Your task to perform on an android device: Open Google Chrome Image 0: 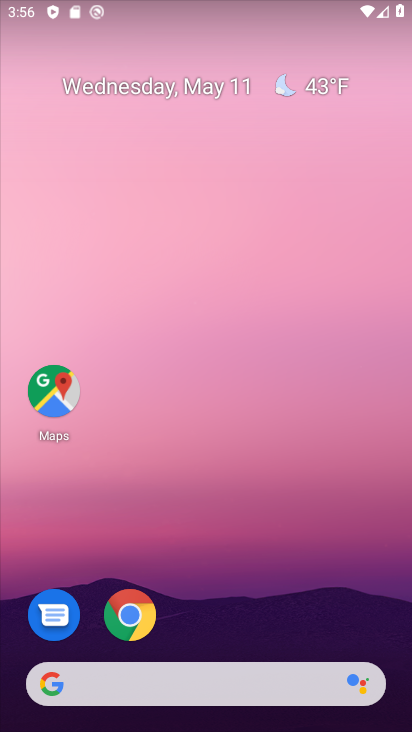
Step 0: drag from (279, 559) to (249, 97)
Your task to perform on an android device: Open Google Chrome Image 1: 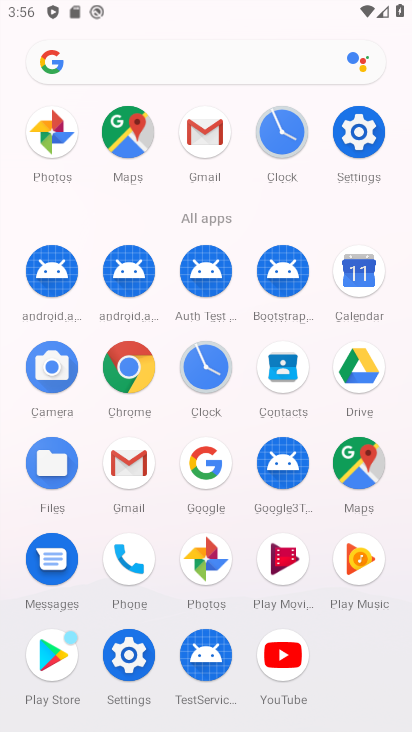
Step 1: drag from (5, 610) to (5, 242)
Your task to perform on an android device: Open Google Chrome Image 2: 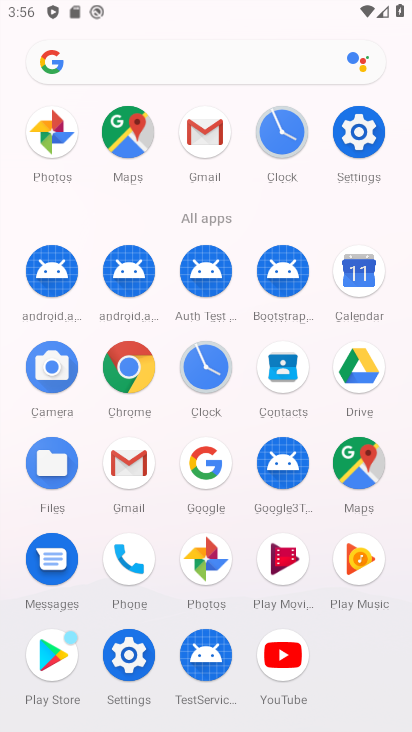
Step 2: click (130, 366)
Your task to perform on an android device: Open Google Chrome Image 3: 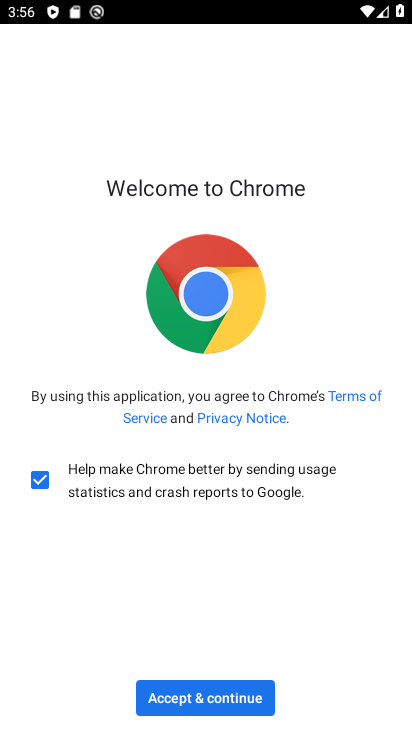
Step 3: click (224, 695)
Your task to perform on an android device: Open Google Chrome Image 4: 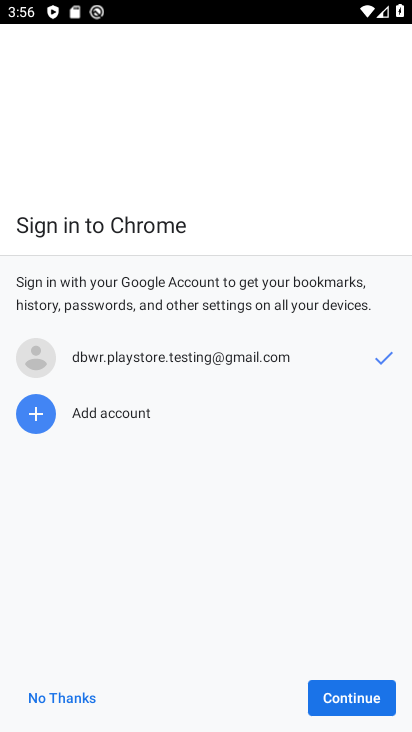
Step 4: click (347, 688)
Your task to perform on an android device: Open Google Chrome Image 5: 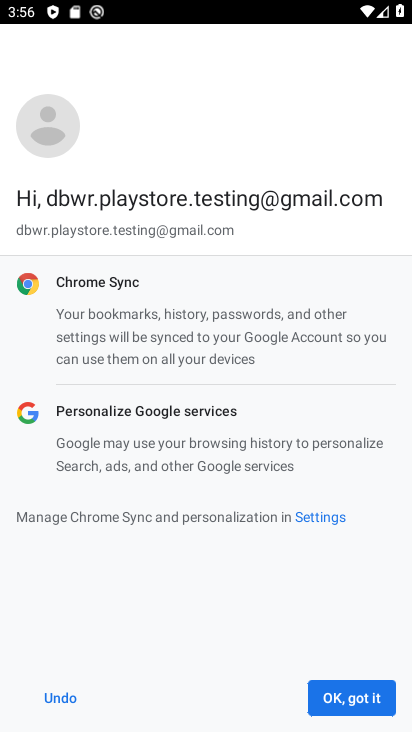
Step 5: click (347, 688)
Your task to perform on an android device: Open Google Chrome Image 6: 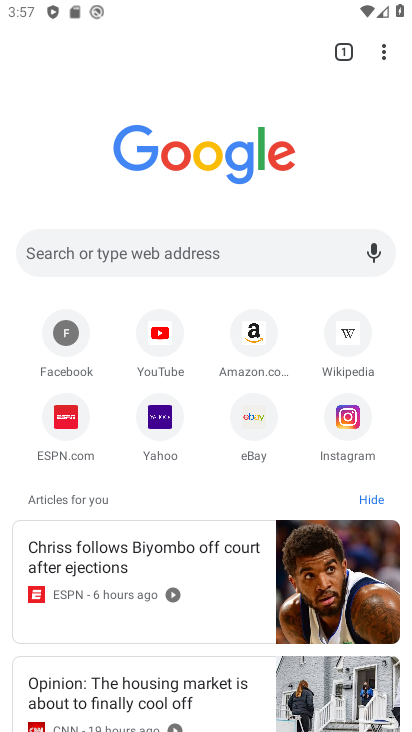
Step 6: task complete